Your task to perform on an android device: Do I have any events this weekend? Image 0: 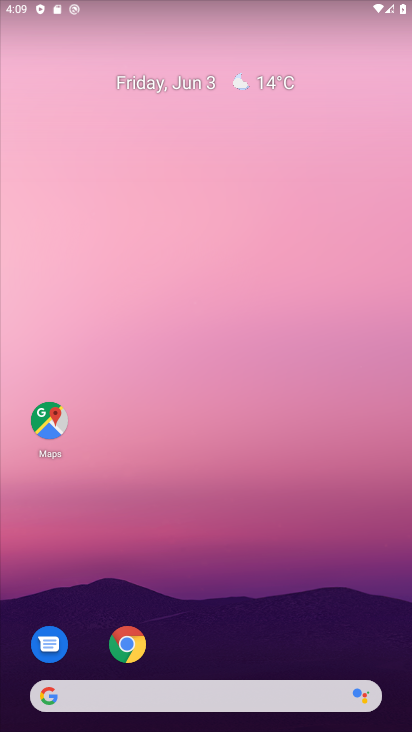
Step 0: click (151, 91)
Your task to perform on an android device: Do I have any events this weekend? Image 1: 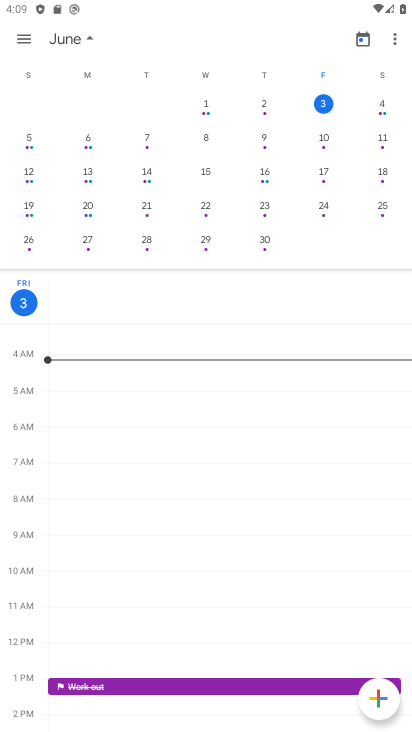
Step 1: click (386, 105)
Your task to perform on an android device: Do I have any events this weekend? Image 2: 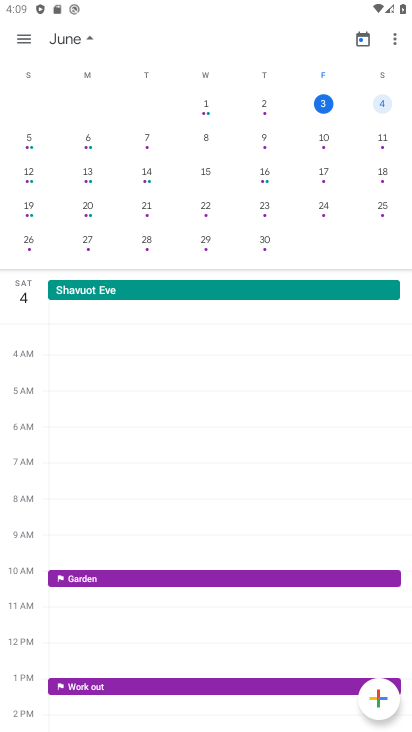
Step 2: task complete